Your task to perform on an android device: Open display settings Image 0: 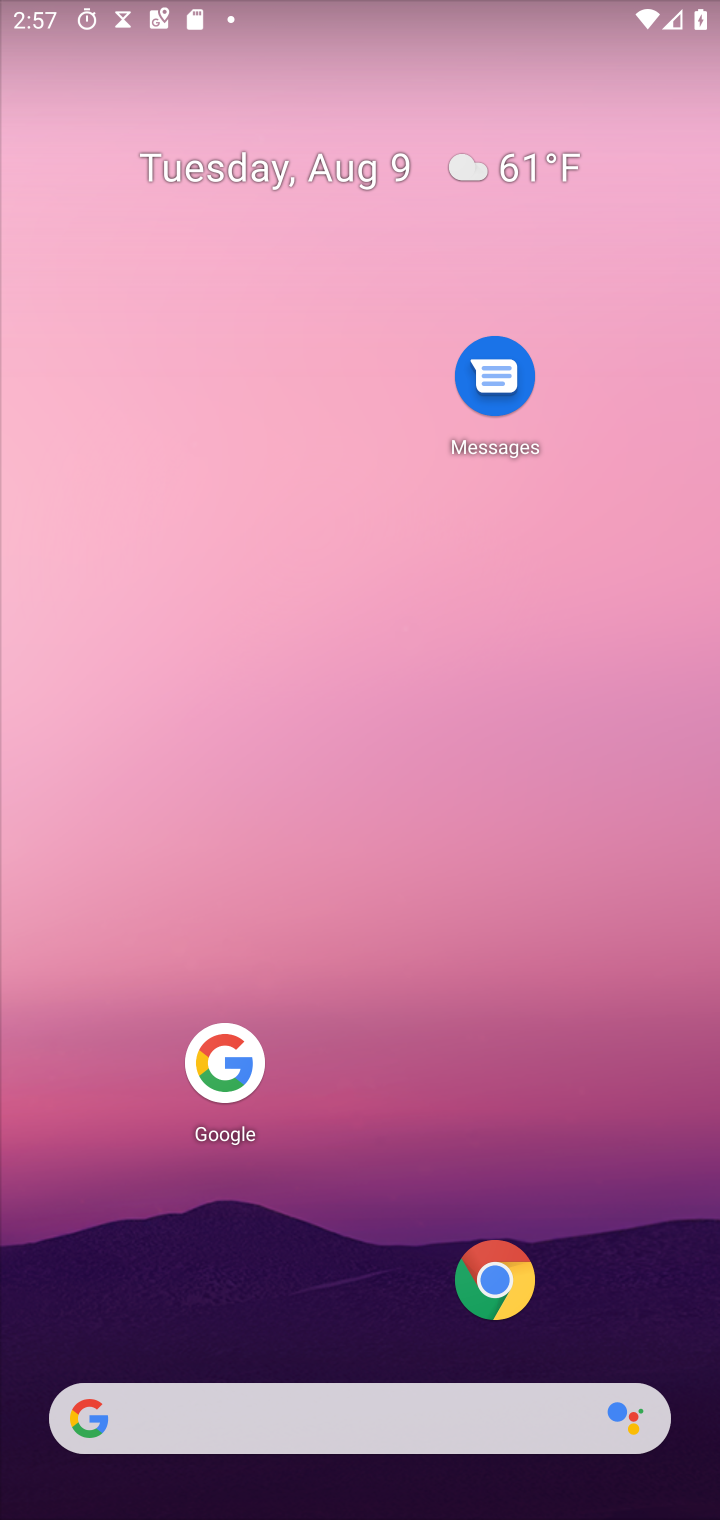
Step 0: press home button
Your task to perform on an android device: Open display settings Image 1: 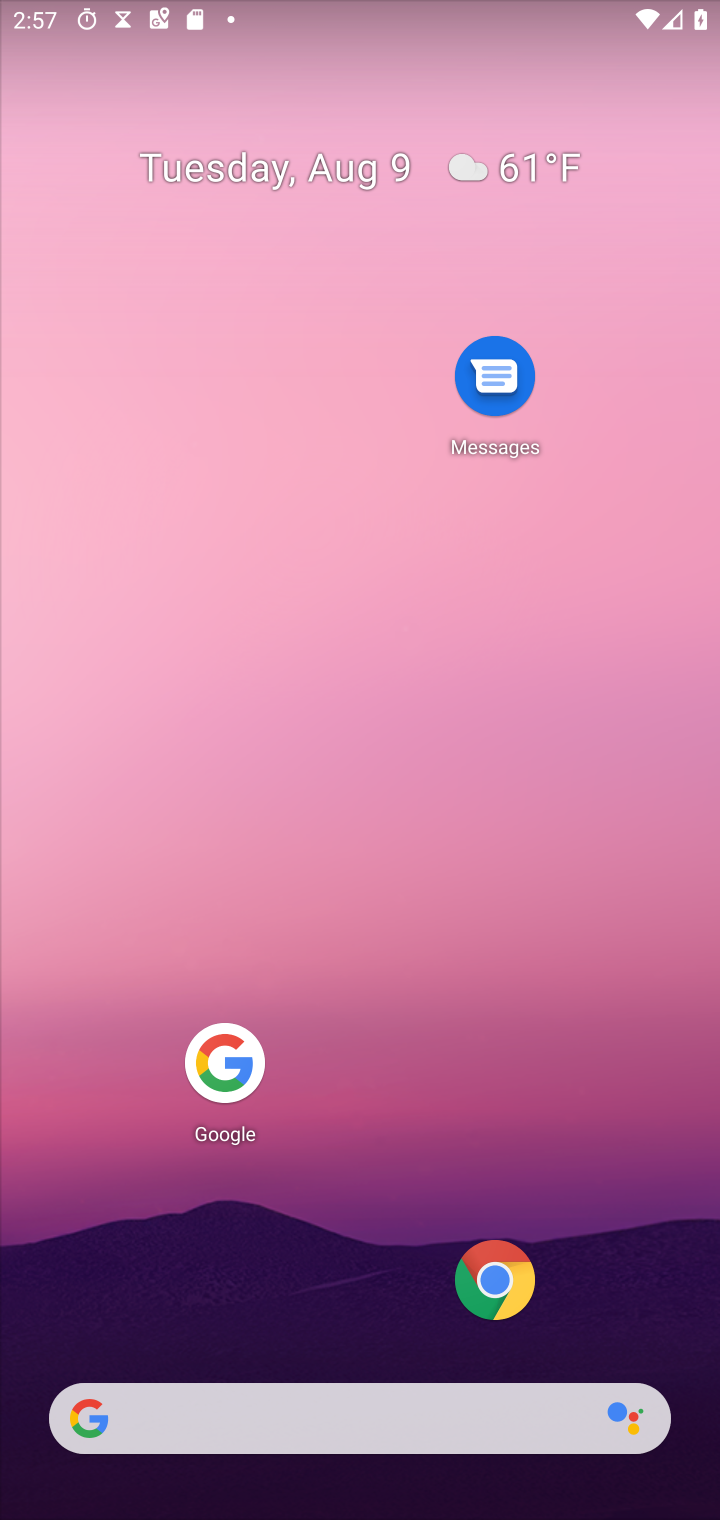
Step 1: drag from (325, 1425) to (421, 450)
Your task to perform on an android device: Open display settings Image 2: 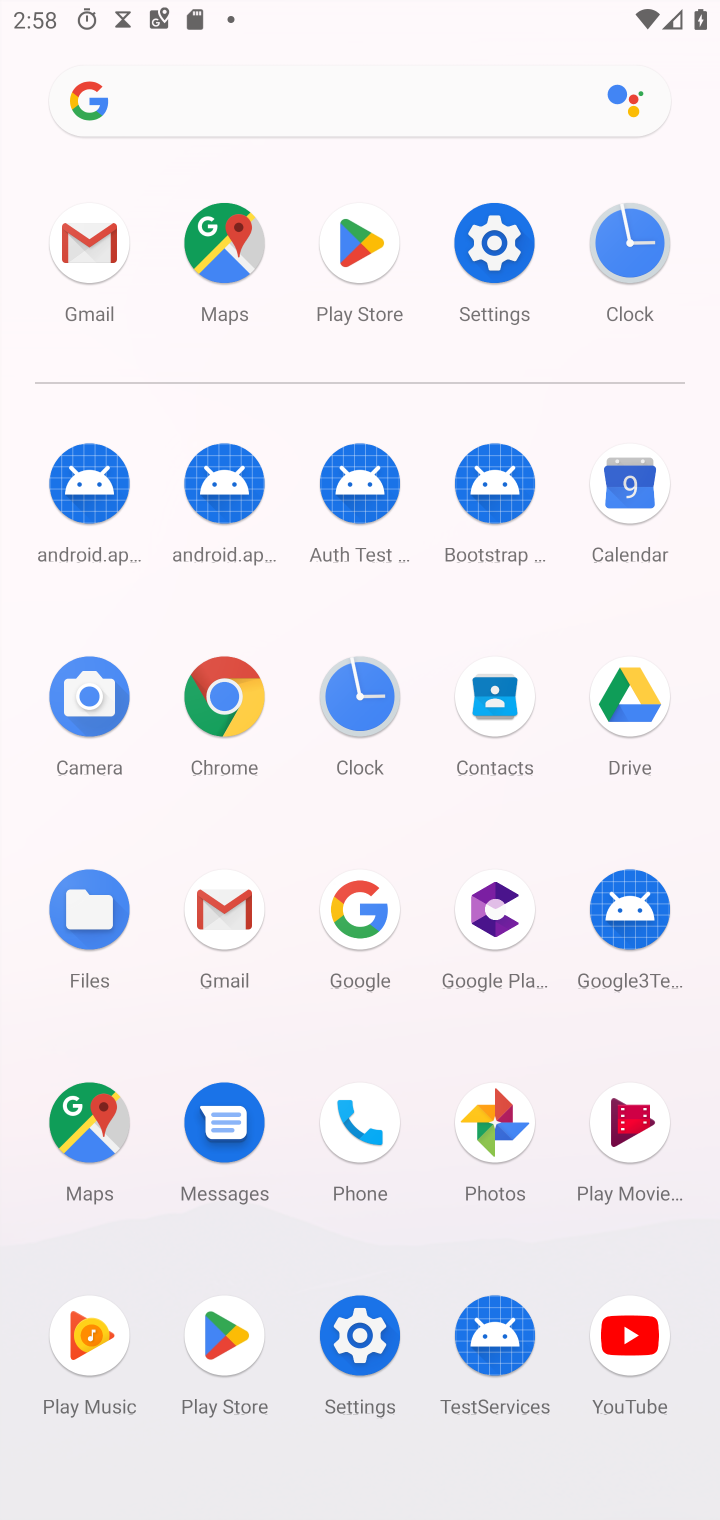
Step 2: click (500, 228)
Your task to perform on an android device: Open display settings Image 3: 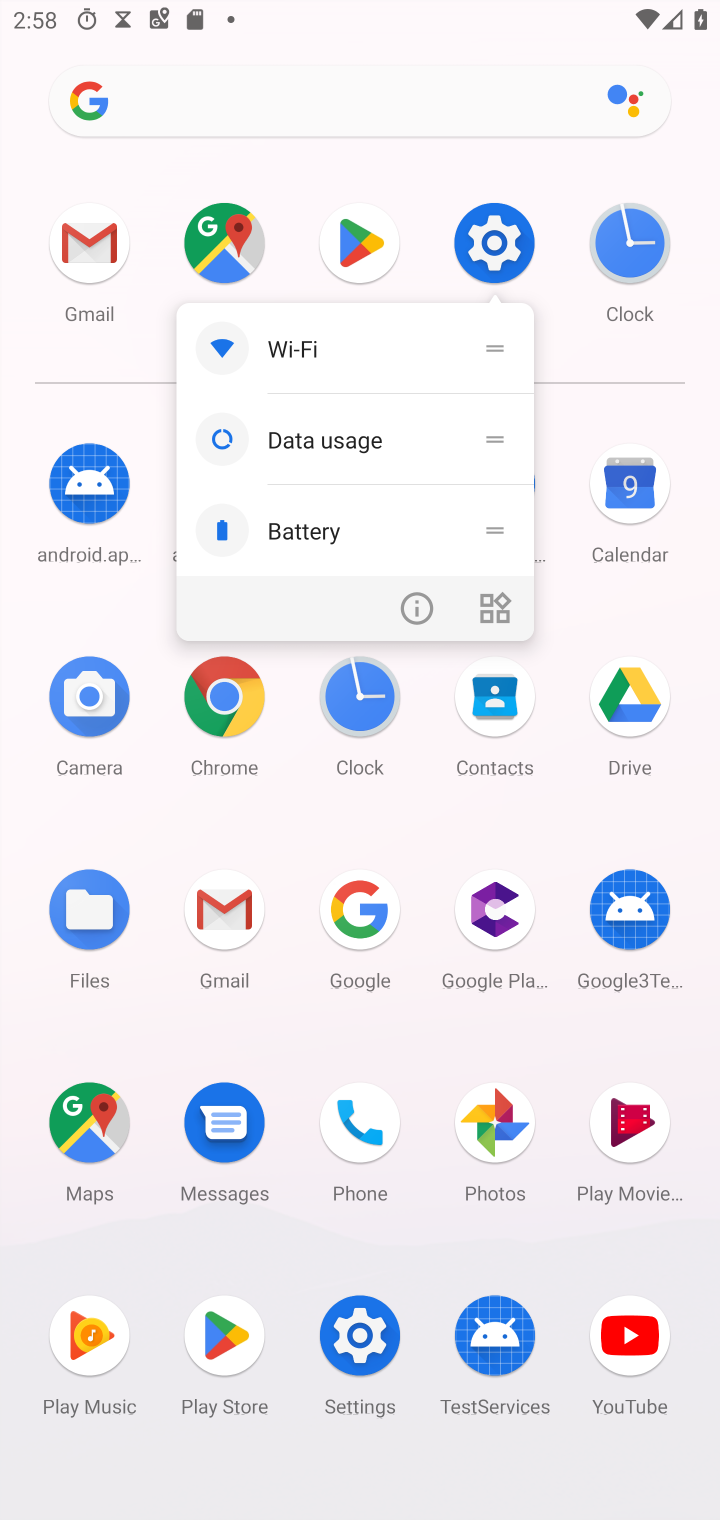
Step 3: click (485, 223)
Your task to perform on an android device: Open display settings Image 4: 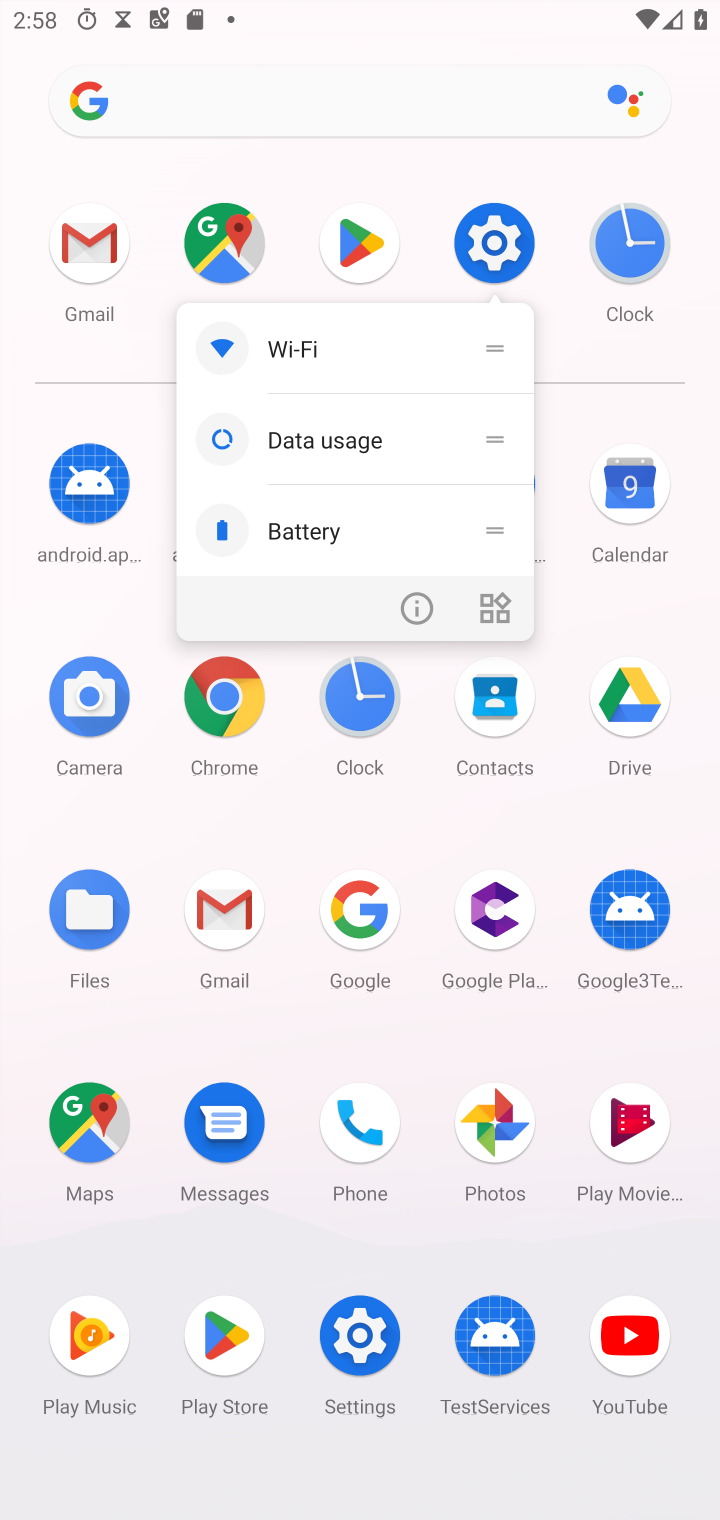
Step 4: click (485, 224)
Your task to perform on an android device: Open display settings Image 5: 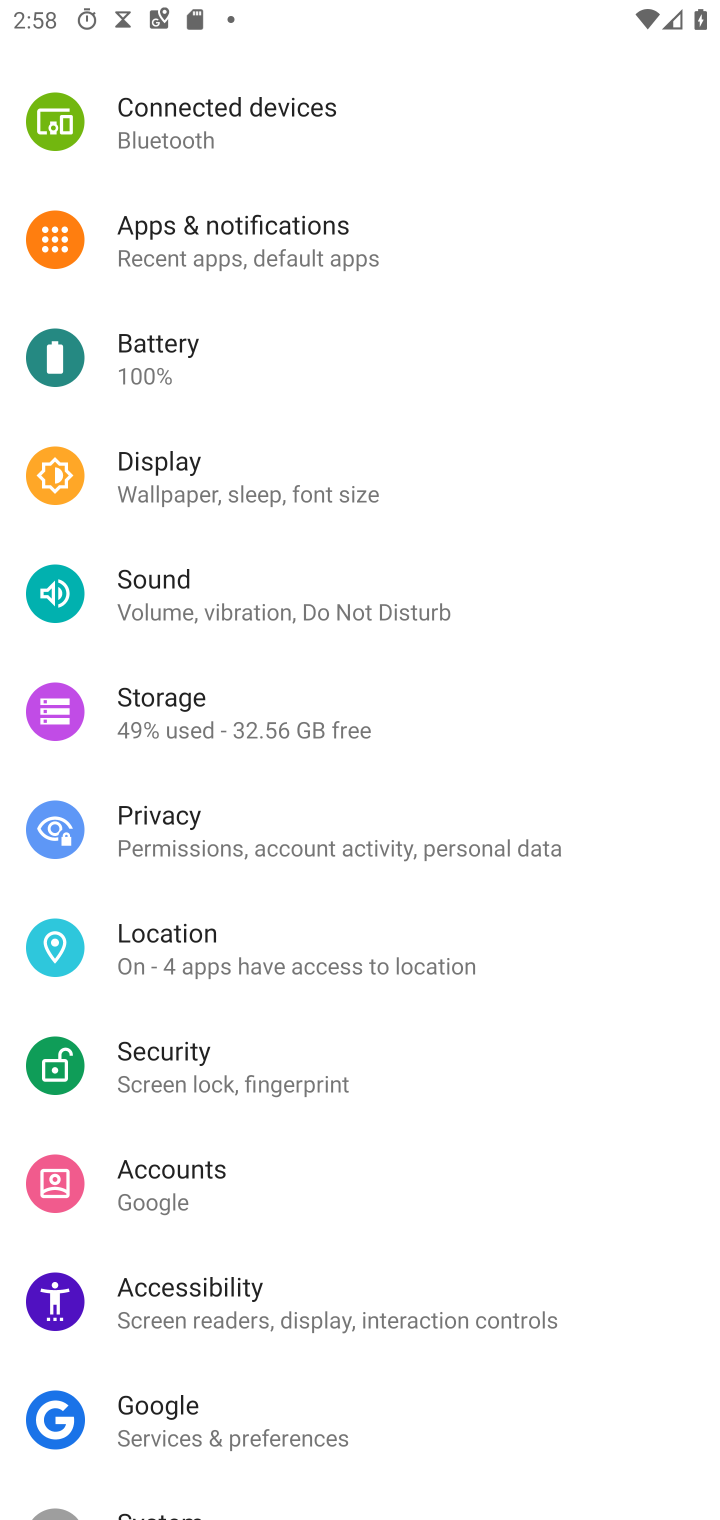
Step 5: click (193, 460)
Your task to perform on an android device: Open display settings Image 6: 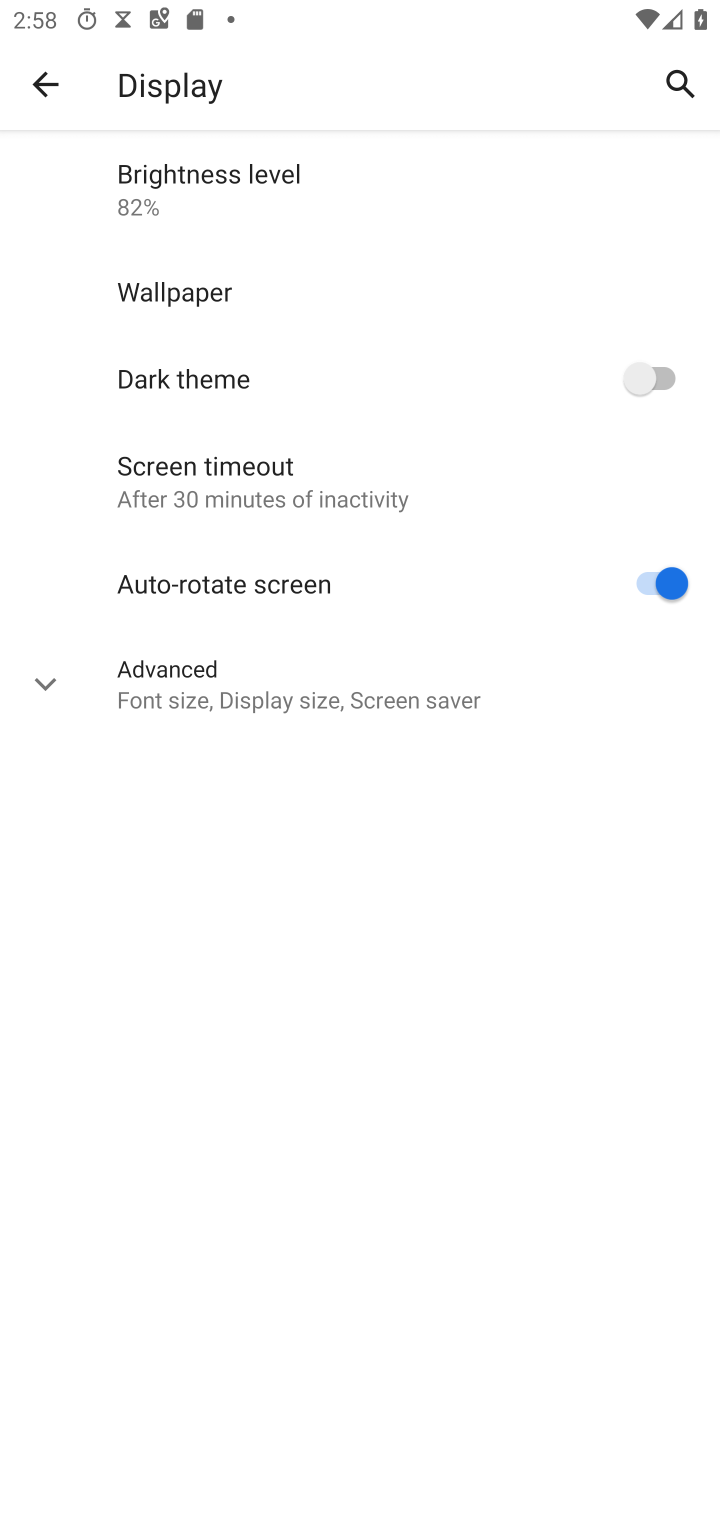
Step 6: task complete